Your task to perform on an android device: turn on sleep mode Image 0: 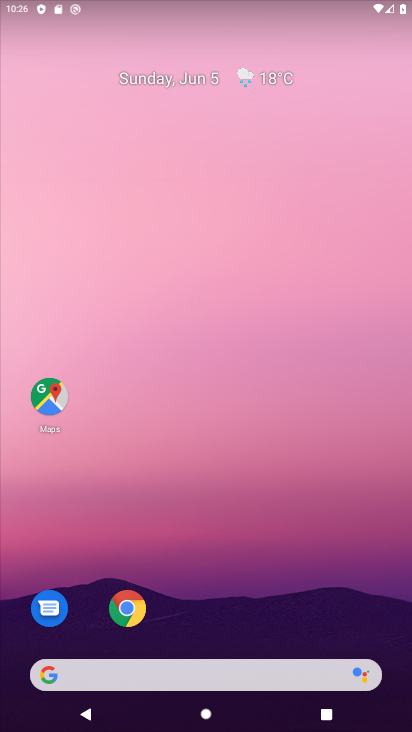
Step 0: drag from (273, 585) to (102, 2)
Your task to perform on an android device: turn on sleep mode Image 1: 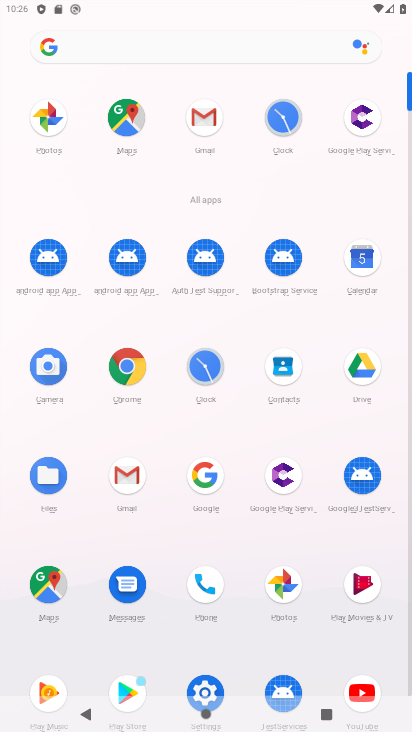
Step 1: click (206, 677)
Your task to perform on an android device: turn on sleep mode Image 2: 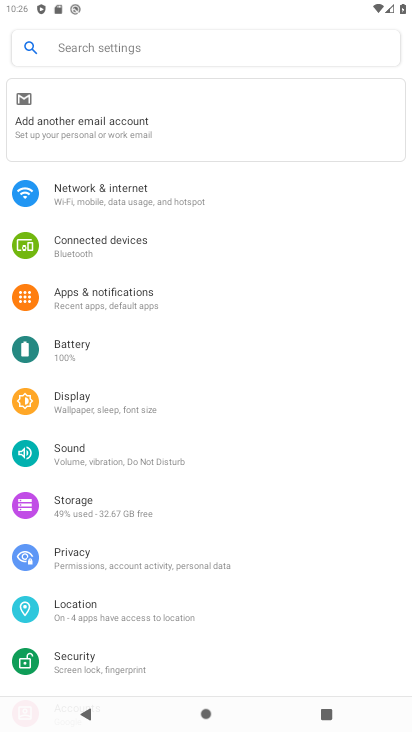
Step 2: task complete